Your task to perform on an android device: Open Google Maps and go to "Timeline" Image 0: 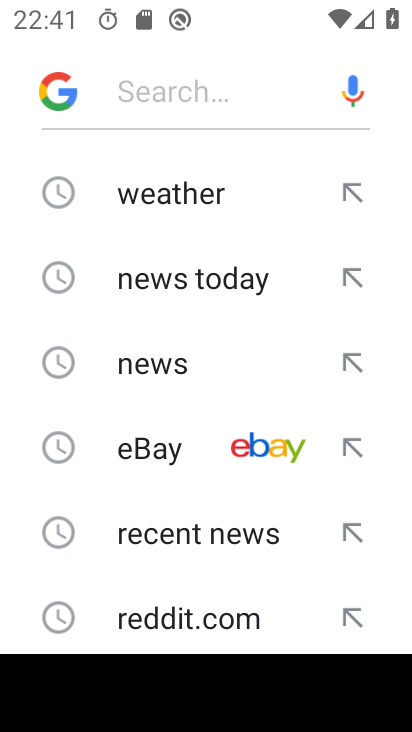
Step 0: press home button
Your task to perform on an android device: Open Google Maps and go to "Timeline" Image 1: 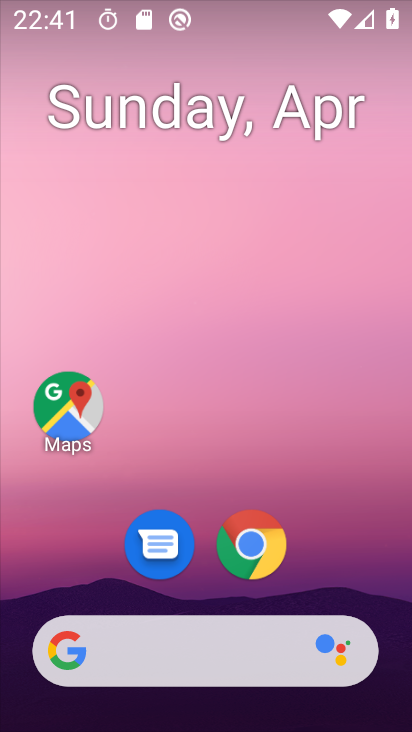
Step 1: drag from (331, 578) to (332, 178)
Your task to perform on an android device: Open Google Maps and go to "Timeline" Image 2: 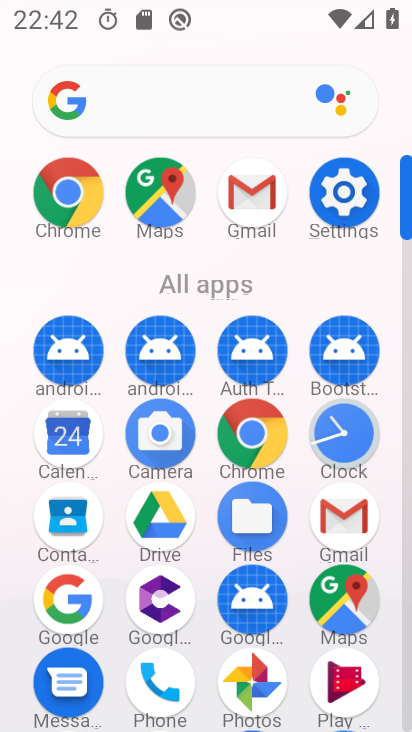
Step 2: click (149, 182)
Your task to perform on an android device: Open Google Maps and go to "Timeline" Image 3: 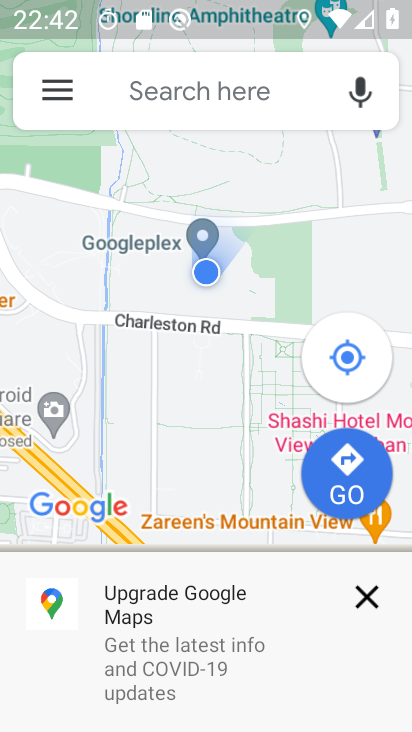
Step 3: click (62, 89)
Your task to perform on an android device: Open Google Maps and go to "Timeline" Image 4: 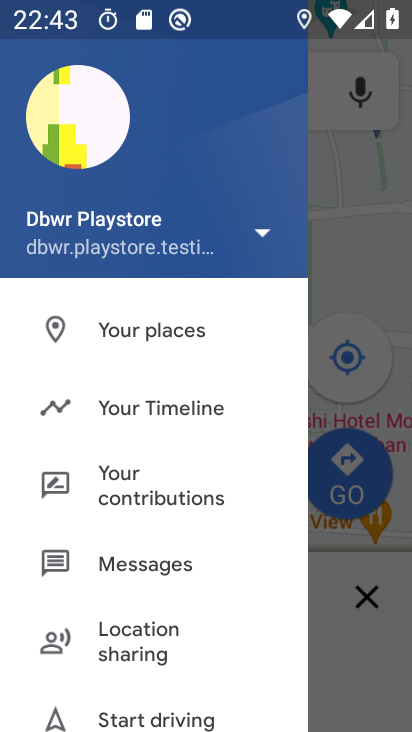
Step 4: task complete